Your task to perform on an android device: toggle pop-ups in chrome Image 0: 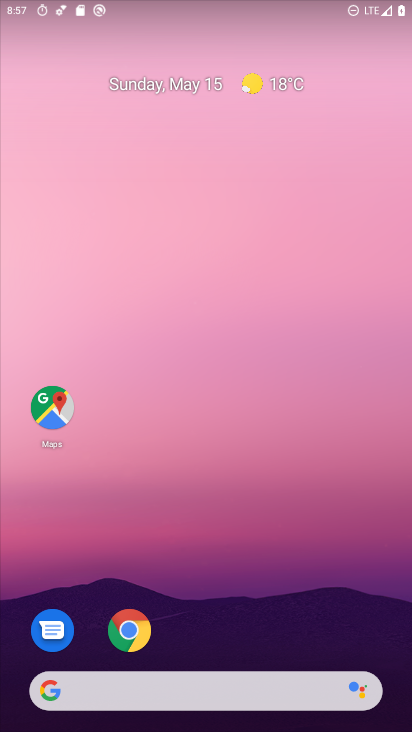
Step 0: drag from (206, 637) to (253, 134)
Your task to perform on an android device: toggle pop-ups in chrome Image 1: 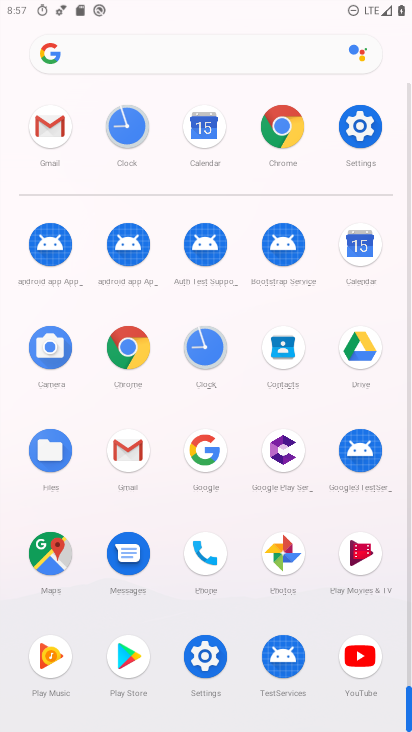
Step 1: click (270, 128)
Your task to perform on an android device: toggle pop-ups in chrome Image 2: 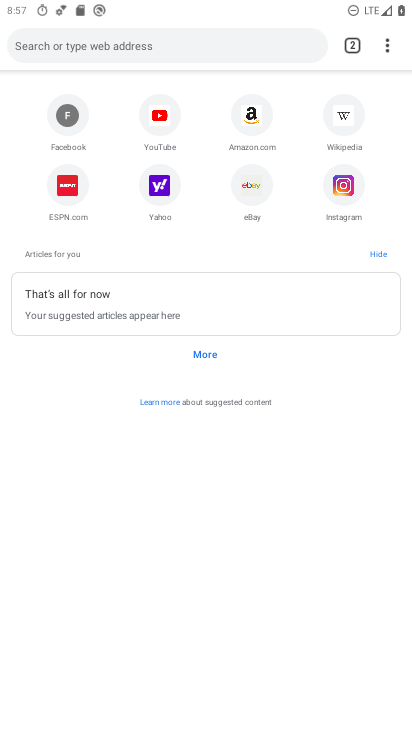
Step 2: click (122, 36)
Your task to perform on an android device: toggle pop-ups in chrome Image 3: 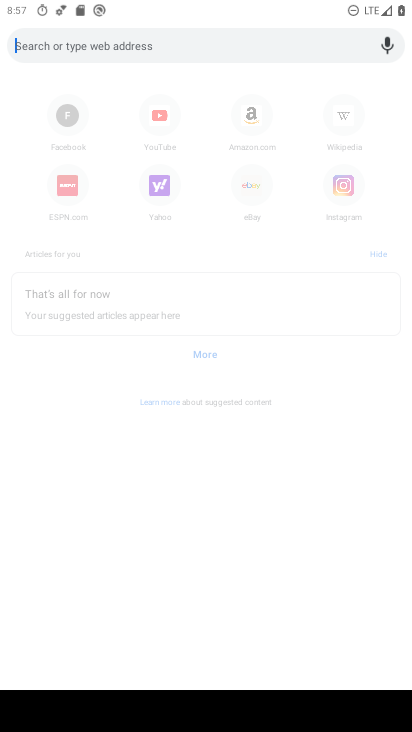
Step 3: click (371, 475)
Your task to perform on an android device: toggle pop-ups in chrome Image 4: 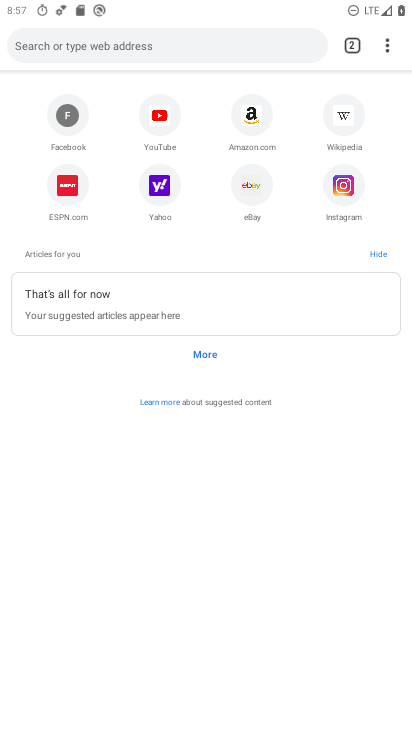
Step 4: click (382, 36)
Your task to perform on an android device: toggle pop-ups in chrome Image 5: 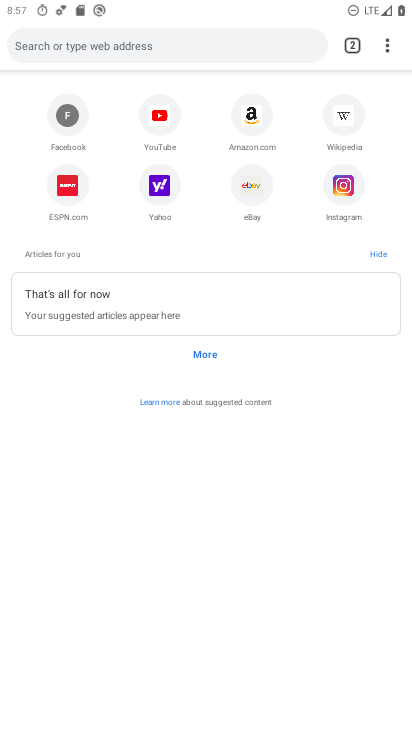
Step 5: click (382, 37)
Your task to perform on an android device: toggle pop-ups in chrome Image 6: 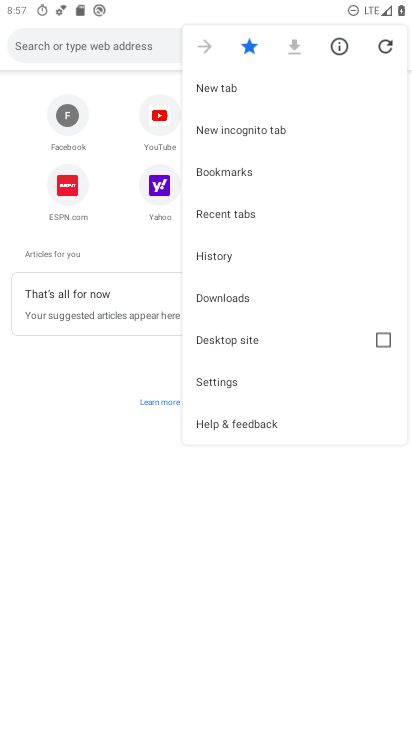
Step 6: click (223, 376)
Your task to perform on an android device: toggle pop-ups in chrome Image 7: 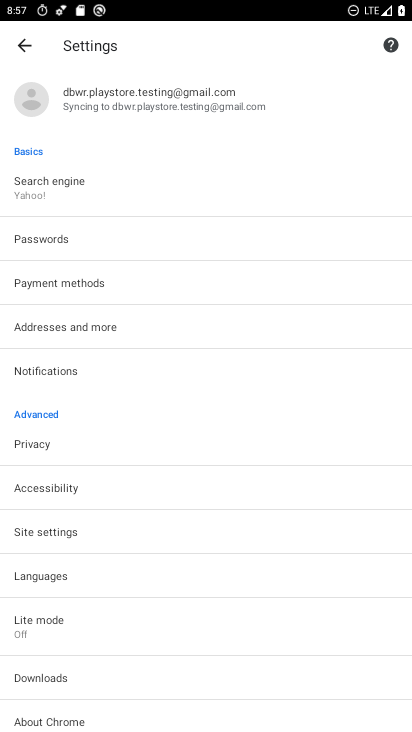
Step 7: drag from (172, 677) to (313, 116)
Your task to perform on an android device: toggle pop-ups in chrome Image 8: 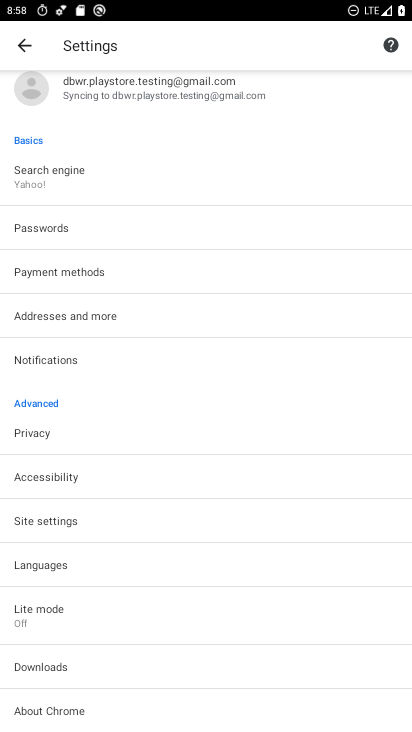
Step 8: click (126, 515)
Your task to perform on an android device: toggle pop-ups in chrome Image 9: 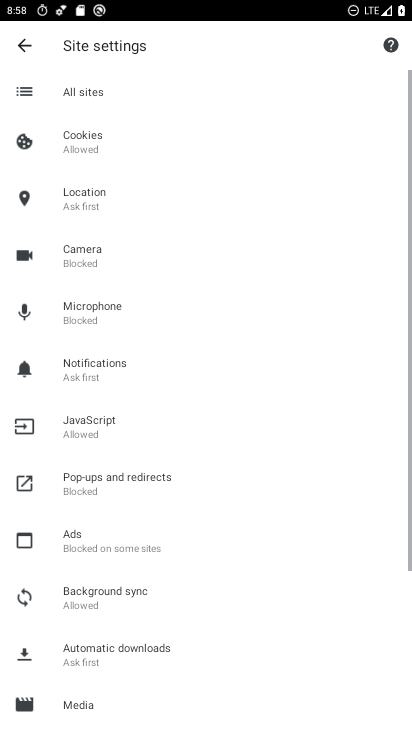
Step 9: drag from (176, 647) to (233, 150)
Your task to perform on an android device: toggle pop-ups in chrome Image 10: 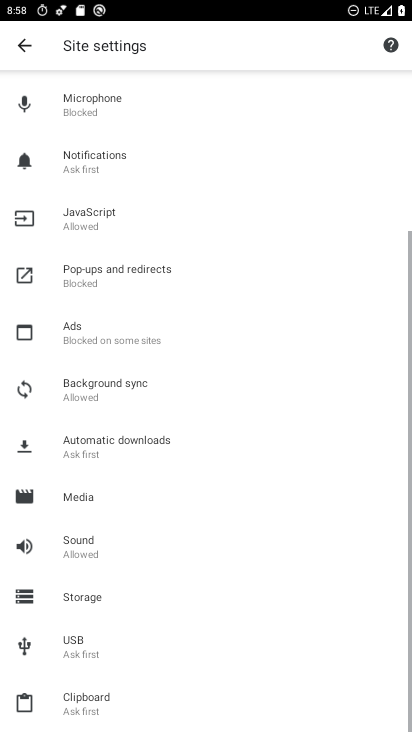
Step 10: drag from (223, 644) to (282, 425)
Your task to perform on an android device: toggle pop-ups in chrome Image 11: 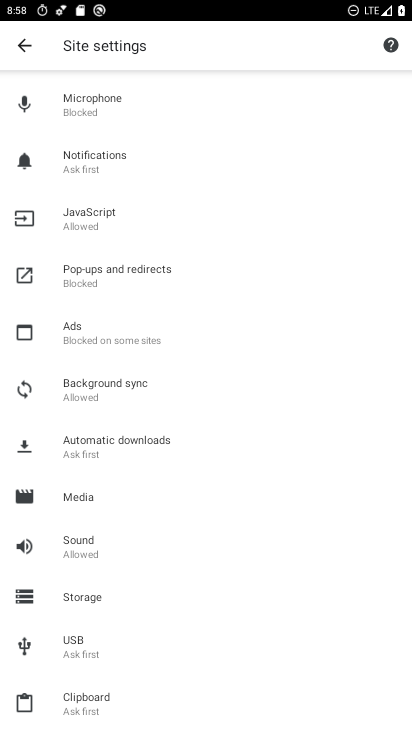
Step 11: click (109, 264)
Your task to perform on an android device: toggle pop-ups in chrome Image 12: 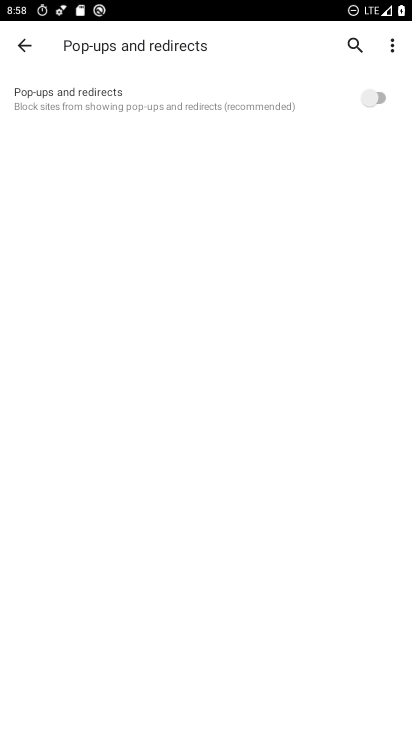
Step 12: click (329, 106)
Your task to perform on an android device: toggle pop-ups in chrome Image 13: 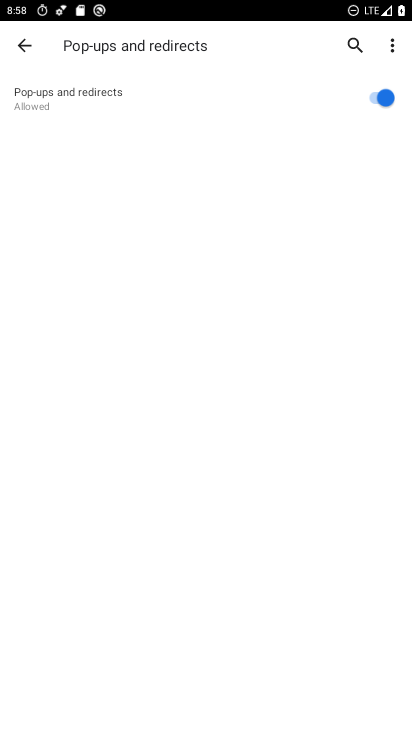
Step 13: task complete